Your task to perform on an android device: find which apps use the phone's location Image 0: 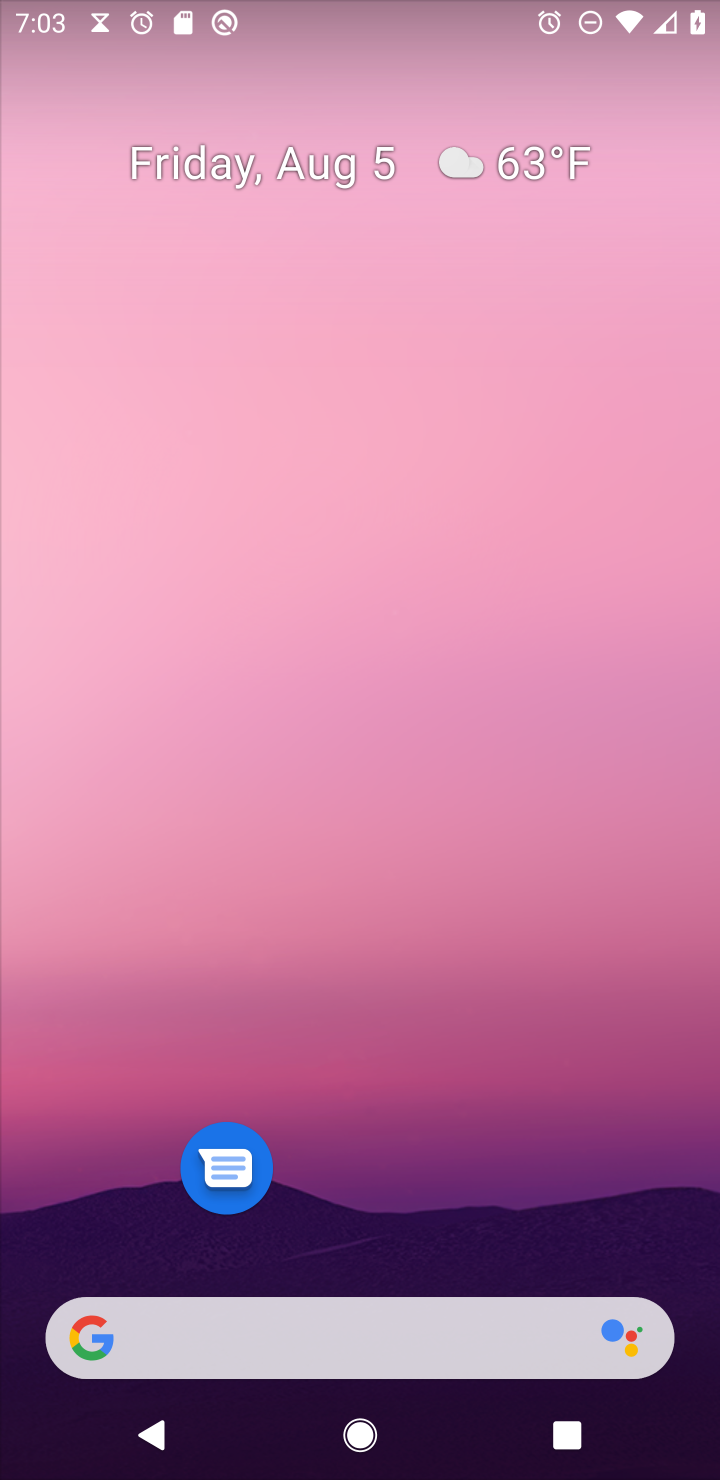
Step 0: press home button
Your task to perform on an android device: find which apps use the phone's location Image 1: 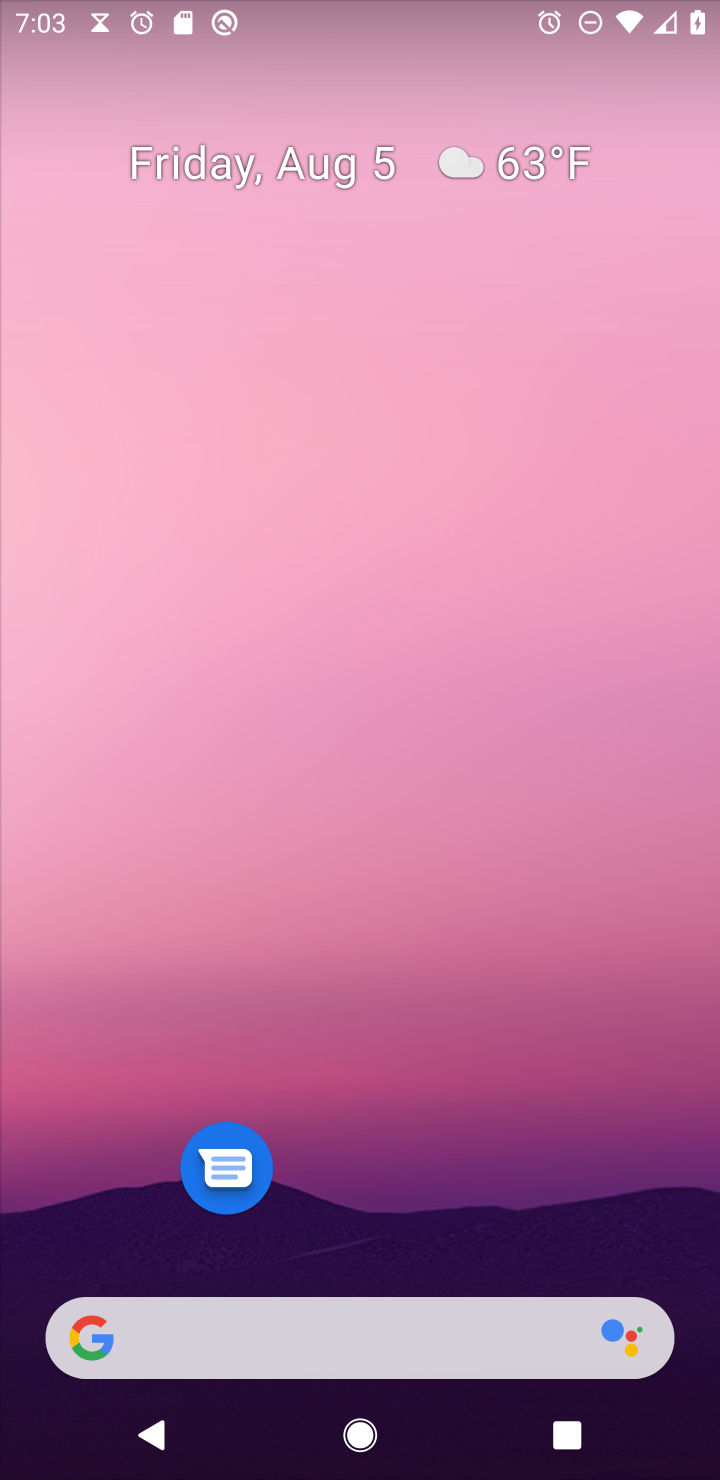
Step 1: drag from (408, 1274) to (624, 305)
Your task to perform on an android device: find which apps use the phone's location Image 2: 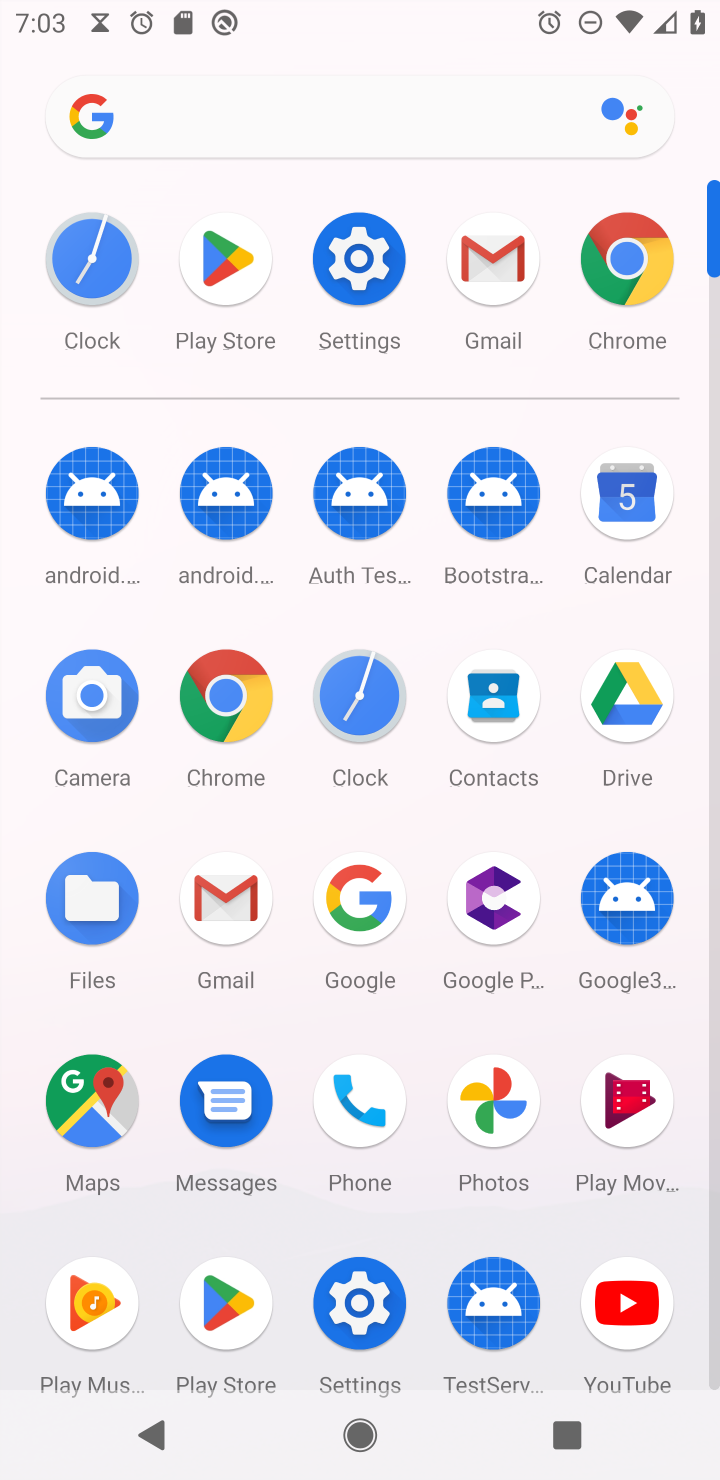
Step 2: click (369, 279)
Your task to perform on an android device: find which apps use the phone's location Image 3: 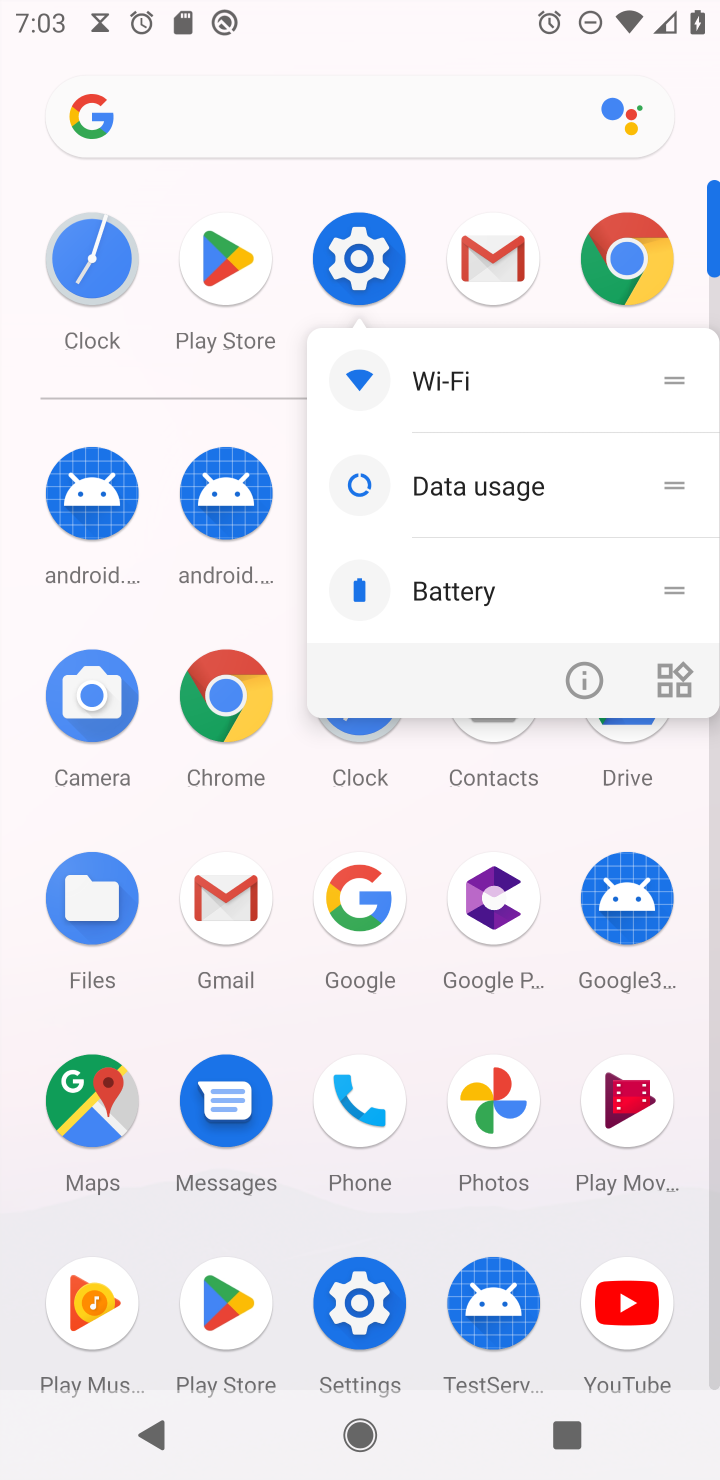
Step 3: click (369, 278)
Your task to perform on an android device: find which apps use the phone's location Image 4: 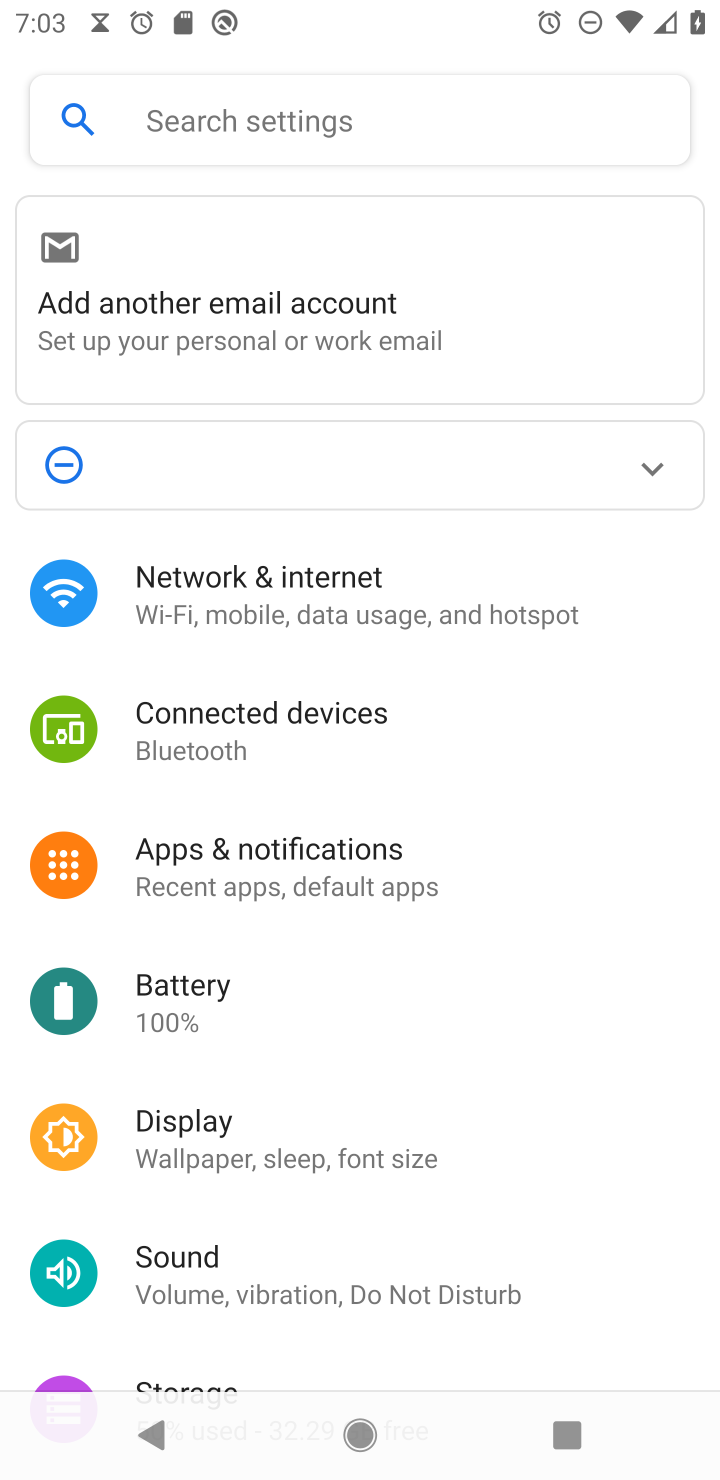
Step 4: drag from (422, 1319) to (475, 681)
Your task to perform on an android device: find which apps use the phone's location Image 5: 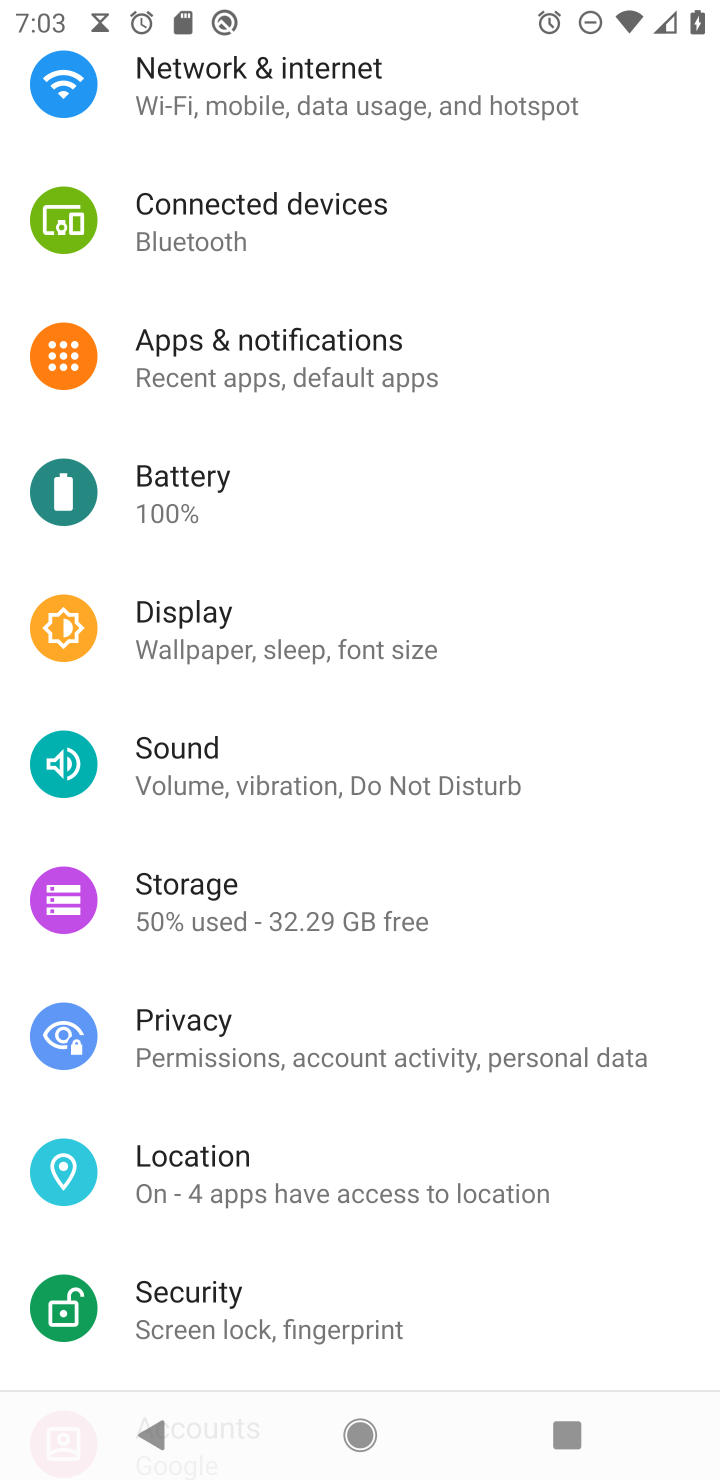
Step 5: click (212, 1178)
Your task to perform on an android device: find which apps use the phone's location Image 6: 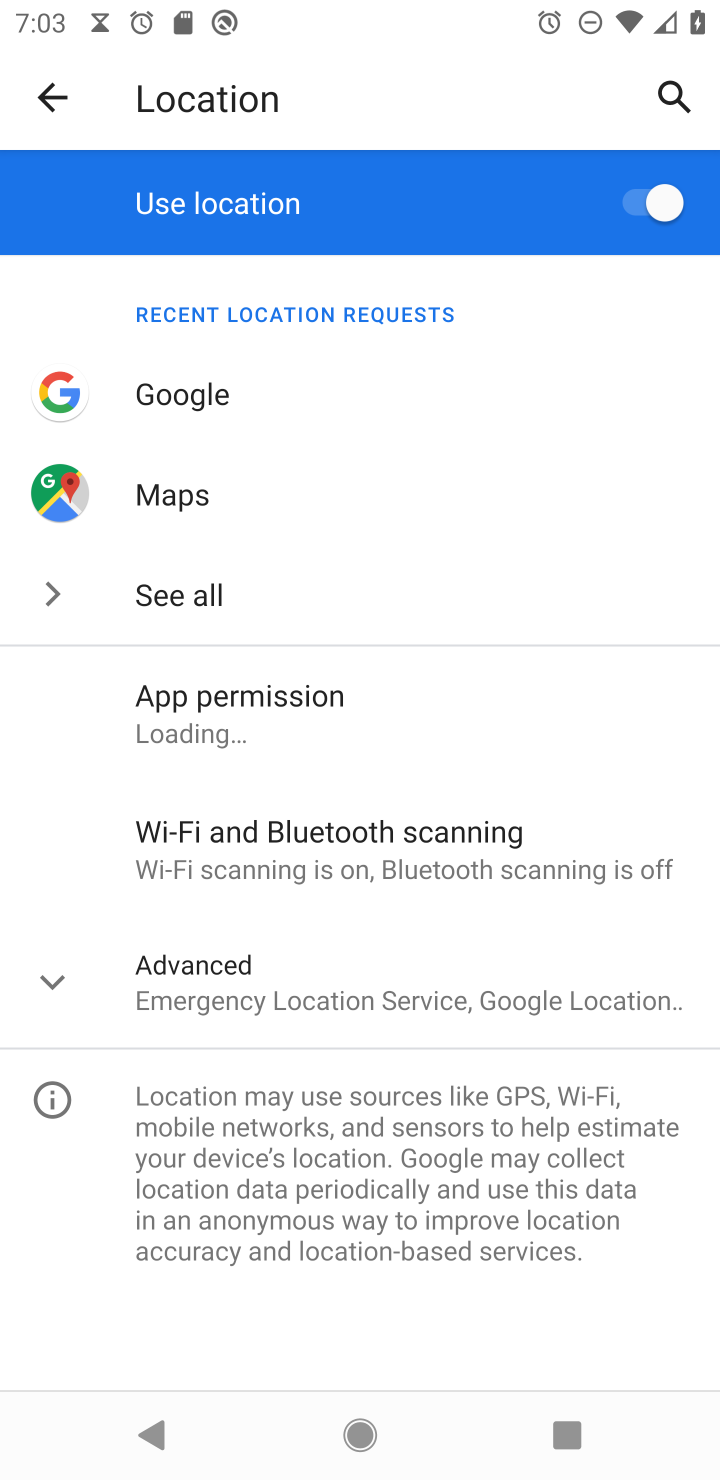
Step 6: click (228, 724)
Your task to perform on an android device: find which apps use the phone's location Image 7: 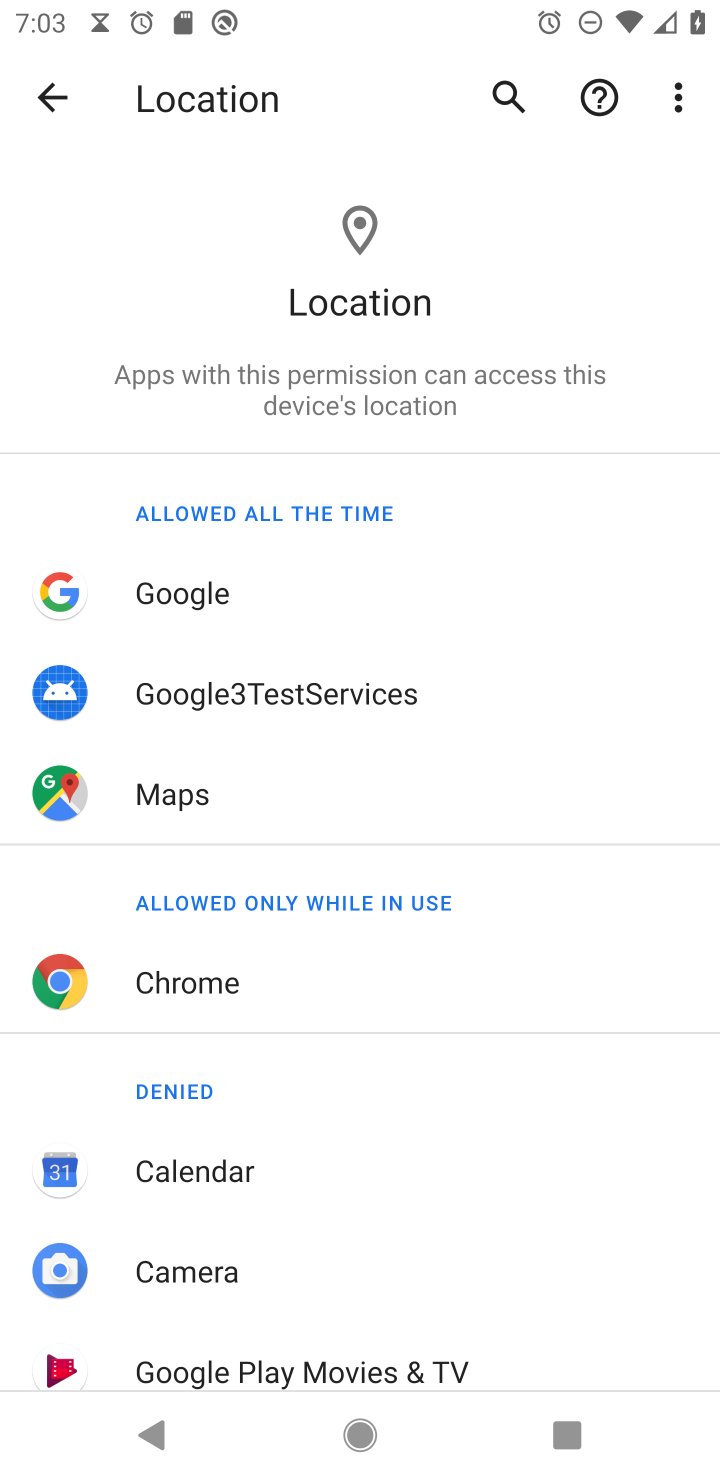
Step 7: task complete